Your task to perform on an android device: Open Chrome and go to settings Image 0: 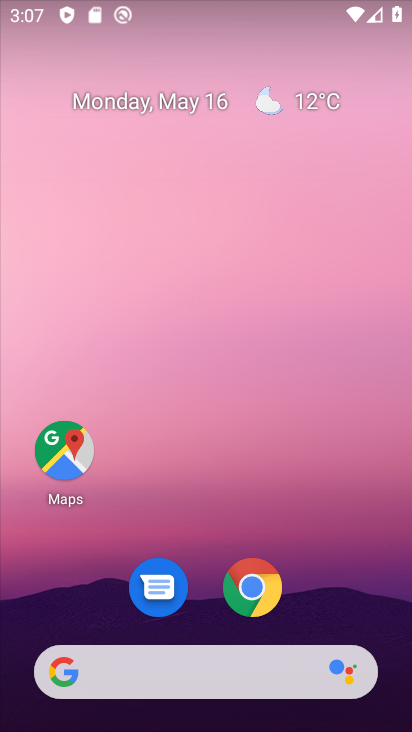
Step 0: click (243, 577)
Your task to perform on an android device: Open Chrome and go to settings Image 1: 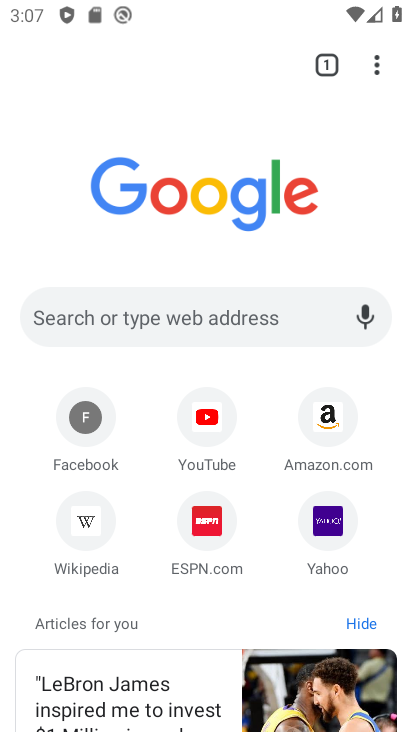
Step 1: click (375, 64)
Your task to perform on an android device: Open Chrome and go to settings Image 2: 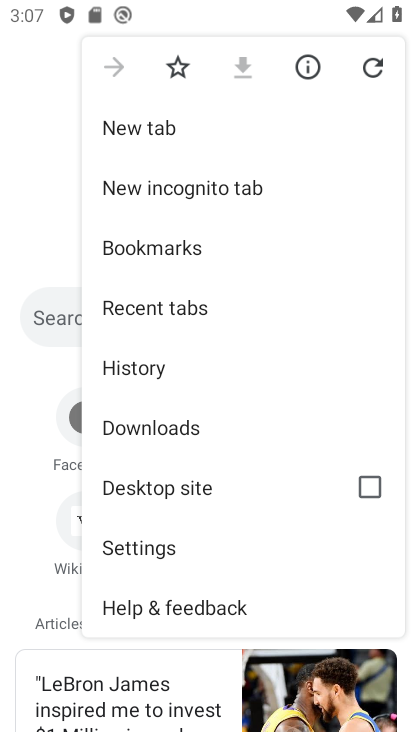
Step 2: click (149, 549)
Your task to perform on an android device: Open Chrome and go to settings Image 3: 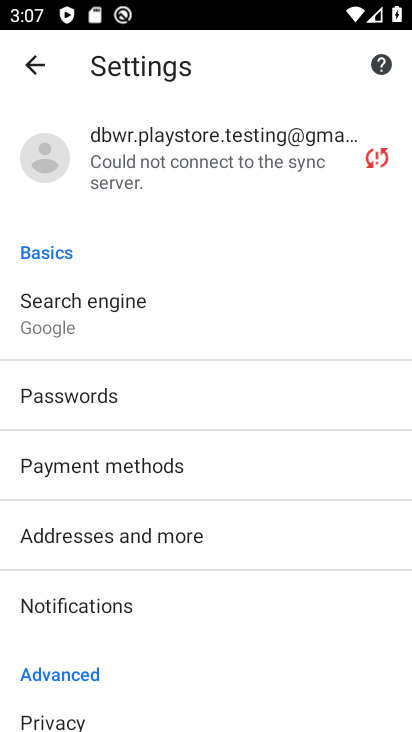
Step 3: task complete